Your task to perform on an android device: Go to wifi settings Image 0: 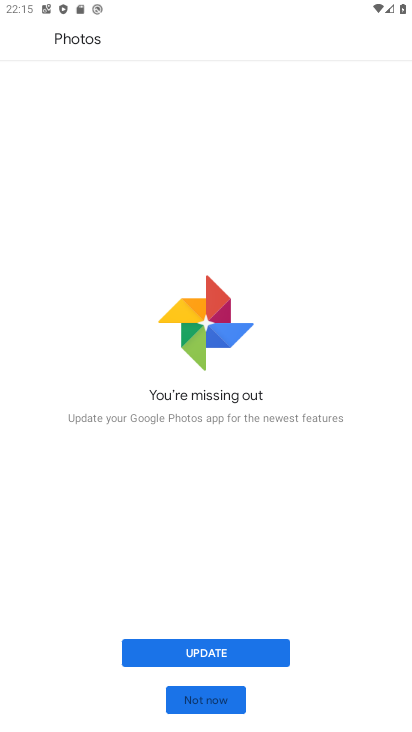
Step 0: press home button
Your task to perform on an android device: Go to wifi settings Image 1: 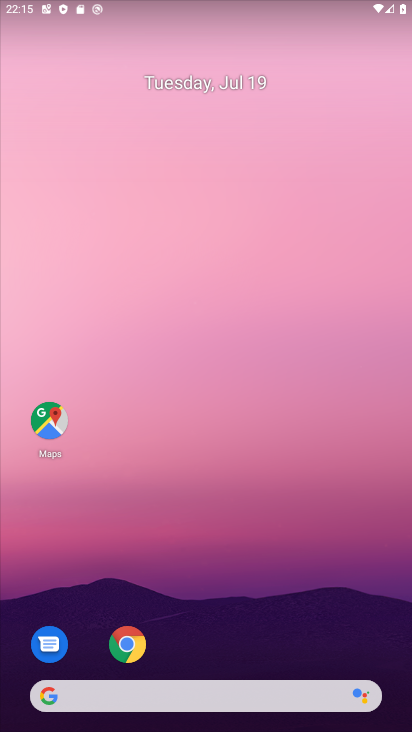
Step 1: drag from (214, 722) to (181, 172)
Your task to perform on an android device: Go to wifi settings Image 2: 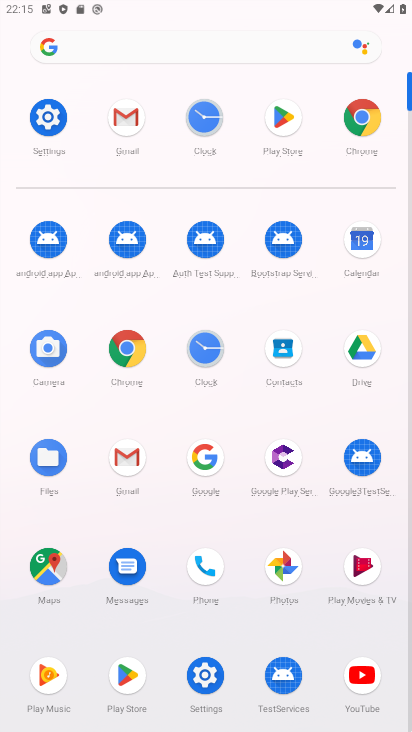
Step 2: click (53, 114)
Your task to perform on an android device: Go to wifi settings Image 3: 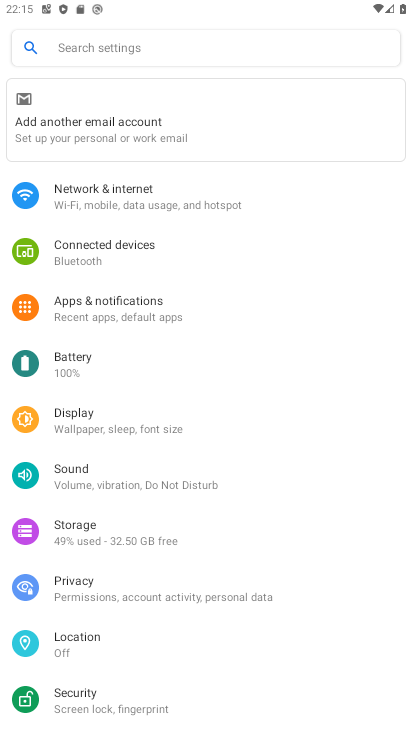
Step 3: click (101, 198)
Your task to perform on an android device: Go to wifi settings Image 4: 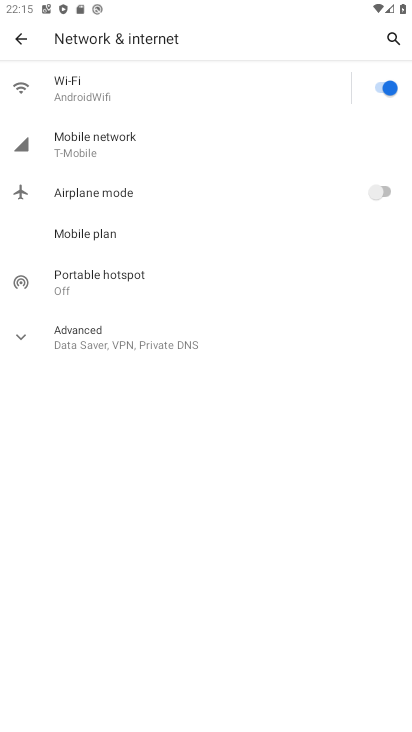
Step 4: click (80, 77)
Your task to perform on an android device: Go to wifi settings Image 5: 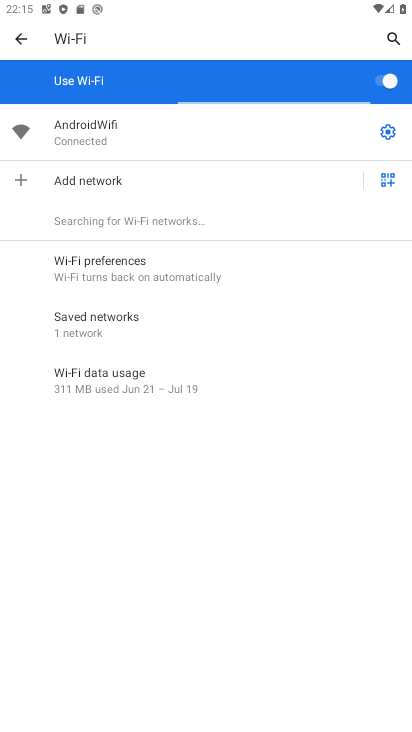
Step 5: task complete